Your task to perform on an android device: Go to location settings Image 0: 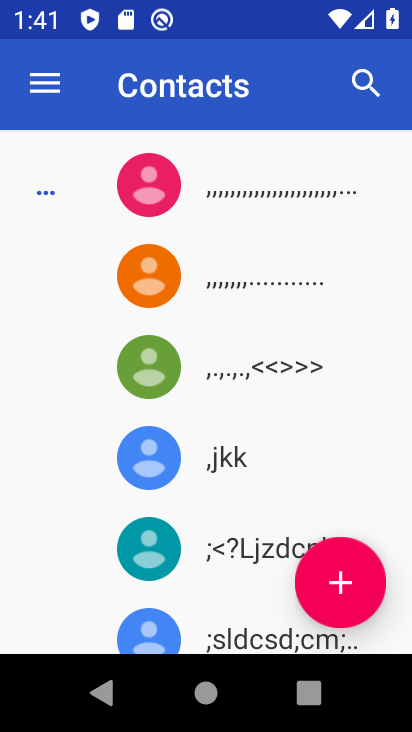
Step 0: press back button
Your task to perform on an android device: Go to location settings Image 1: 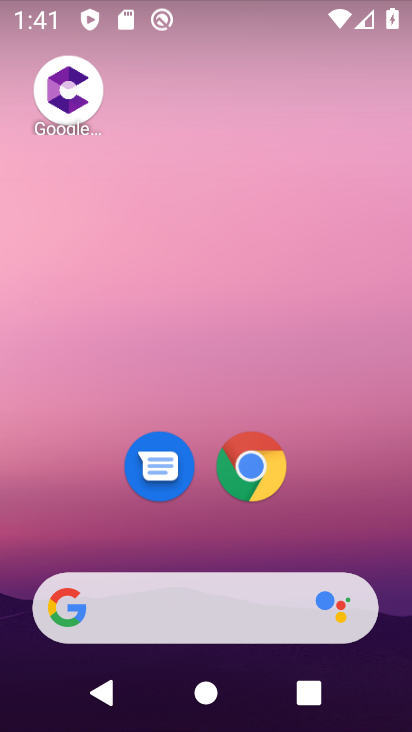
Step 1: drag from (292, 364) to (231, 40)
Your task to perform on an android device: Go to location settings Image 2: 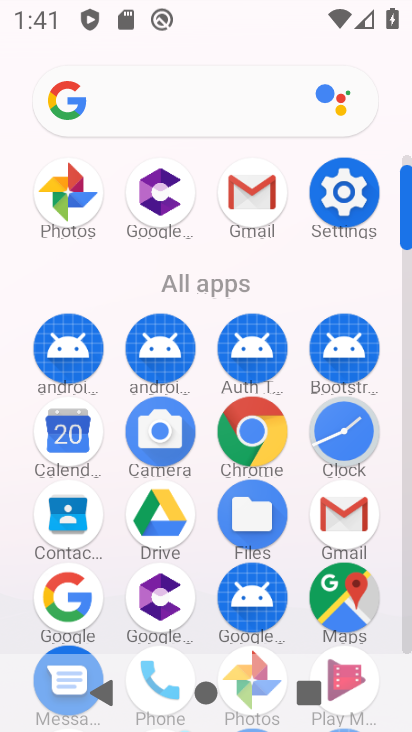
Step 2: drag from (5, 568) to (0, 292)
Your task to perform on an android device: Go to location settings Image 3: 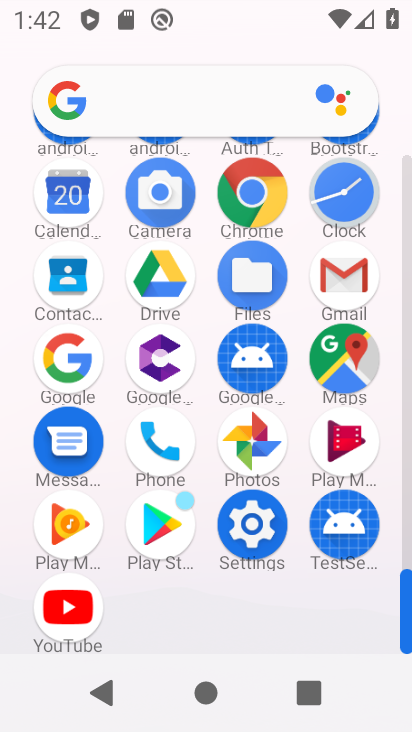
Step 3: click (248, 521)
Your task to perform on an android device: Go to location settings Image 4: 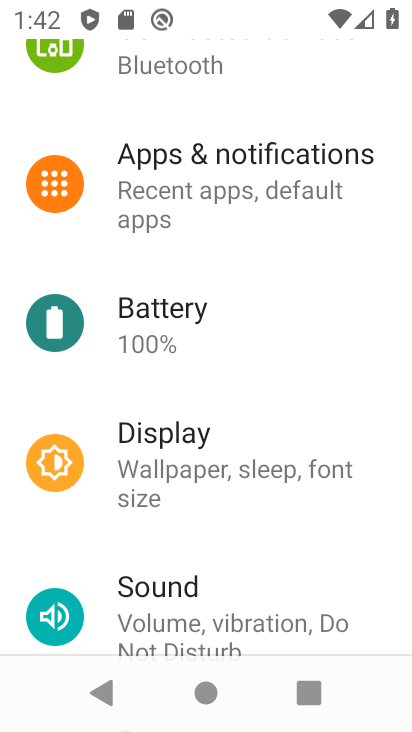
Step 4: drag from (227, 119) to (274, 538)
Your task to perform on an android device: Go to location settings Image 5: 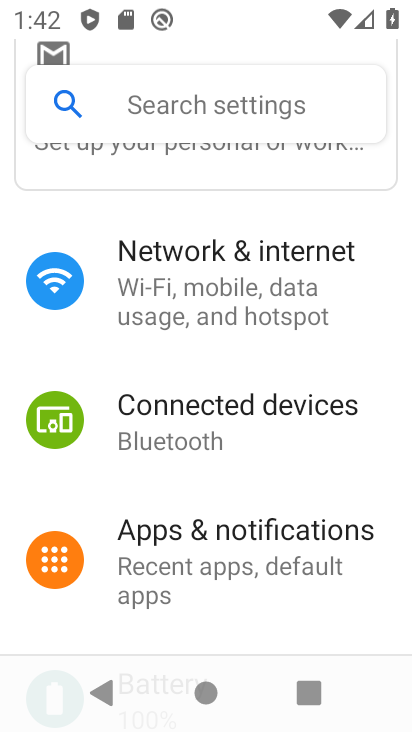
Step 5: drag from (314, 505) to (306, 185)
Your task to perform on an android device: Go to location settings Image 6: 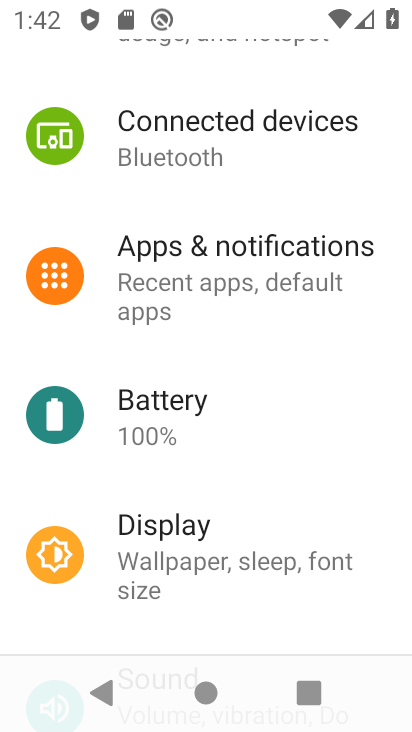
Step 6: drag from (285, 488) to (279, 168)
Your task to perform on an android device: Go to location settings Image 7: 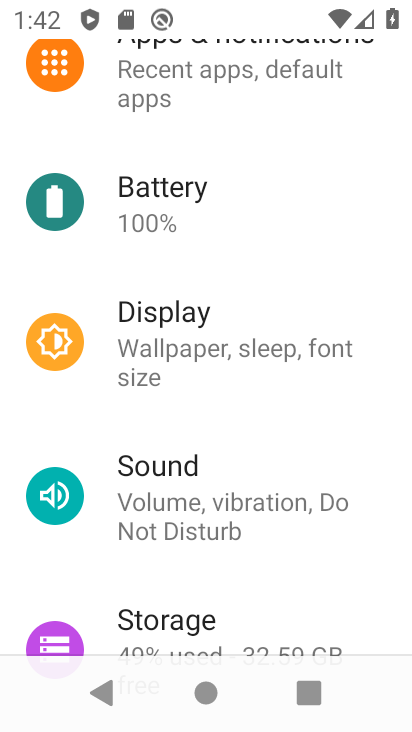
Step 7: drag from (295, 467) to (305, 140)
Your task to perform on an android device: Go to location settings Image 8: 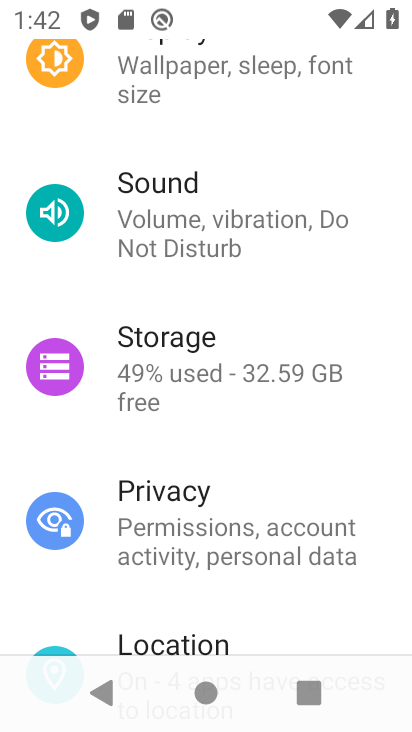
Step 8: drag from (287, 511) to (304, 157)
Your task to perform on an android device: Go to location settings Image 9: 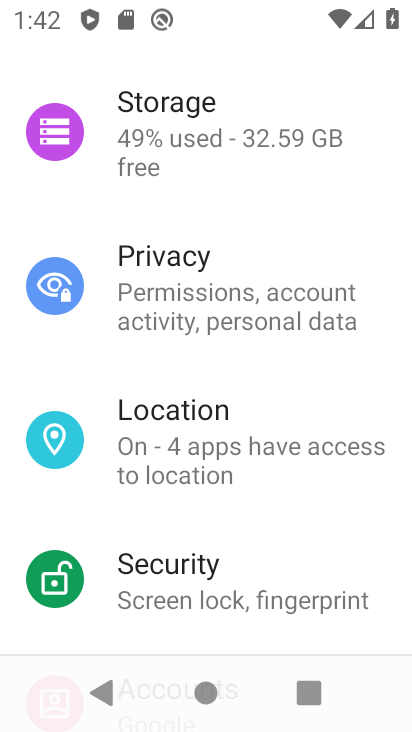
Step 9: drag from (283, 497) to (279, 127)
Your task to perform on an android device: Go to location settings Image 10: 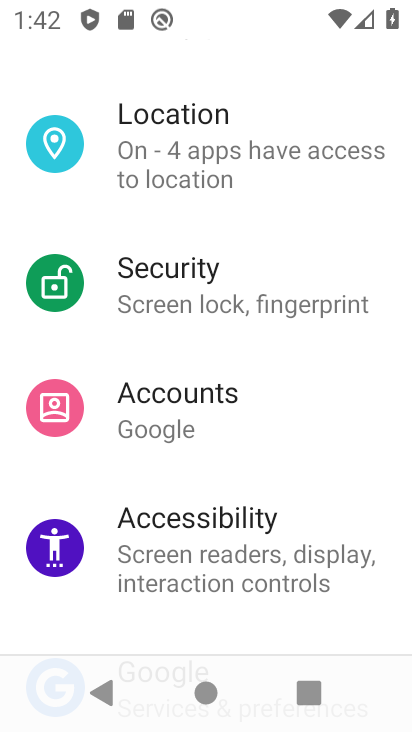
Step 10: drag from (267, 554) to (283, 206)
Your task to perform on an android device: Go to location settings Image 11: 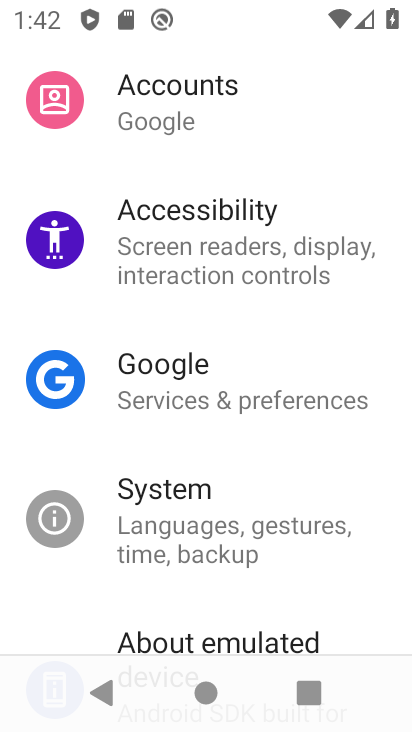
Step 11: drag from (313, 484) to (310, 196)
Your task to perform on an android device: Go to location settings Image 12: 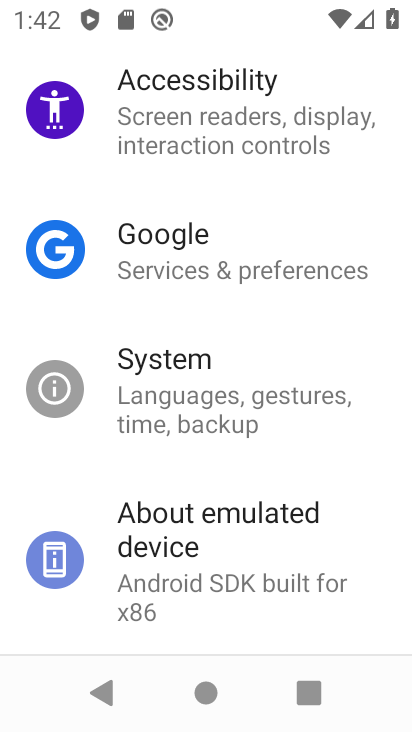
Step 12: drag from (322, 475) to (330, 175)
Your task to perform on an android device: Go to location settings Image 13: 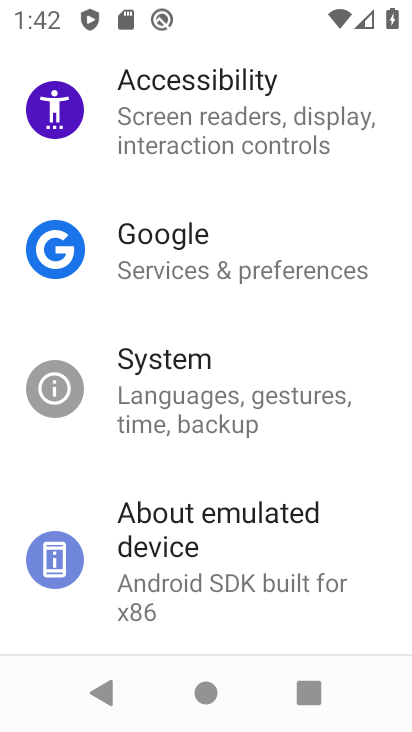
Step 13: drag from (283, 183) to (318, 540)
Your task to perform on an android device: Go to location settings Image 14: 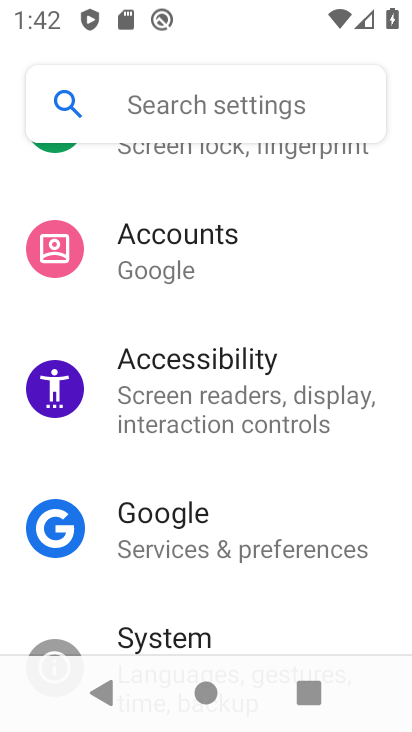
Step 14: drag from (265, 217) to (301, 521)
Your task to perform on an android device: Go to location settings Image 15: 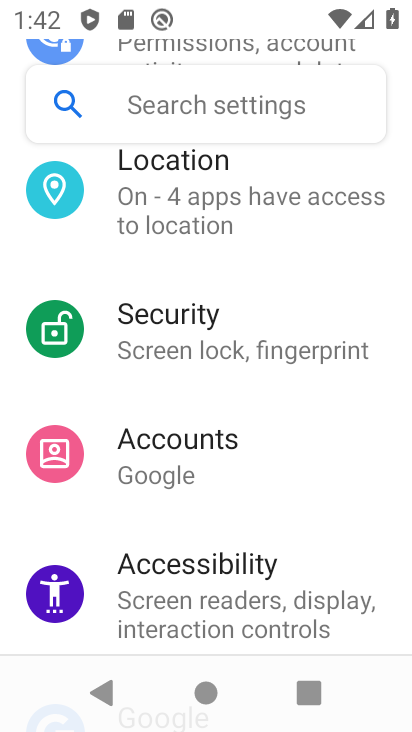
Step 15: drag from (283, 237) to (307, 527)
Your task to perform on an android device: Go to location settings Image 16: 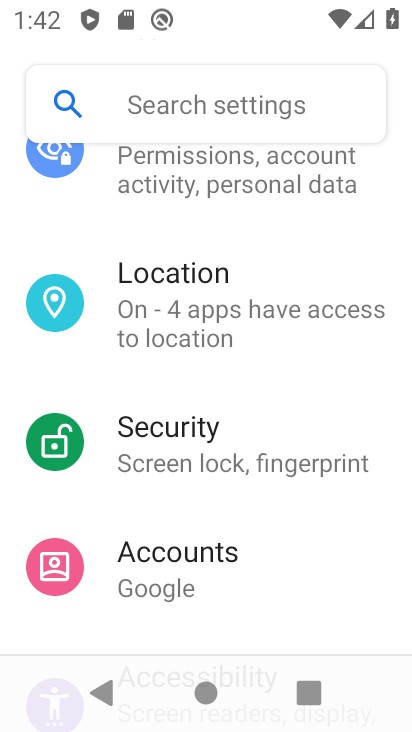
Step 16: click (264, 296)
Your task to perform on an android device: Go to location settings Image 17: 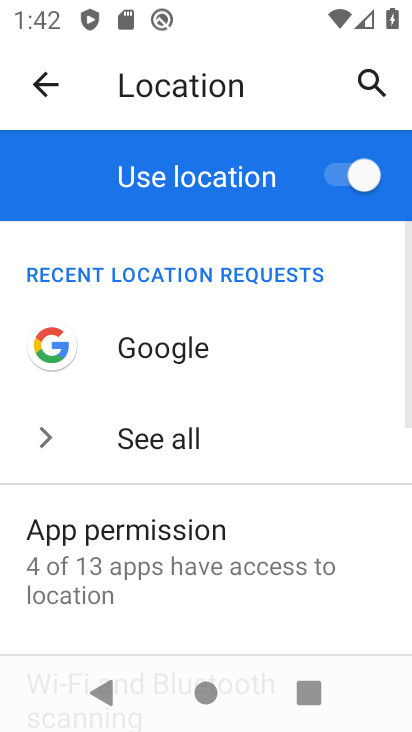
Step 17: drag from (335, 473) to (300, 219)
Your task to perform on an android device: Go to location settings Image 18: 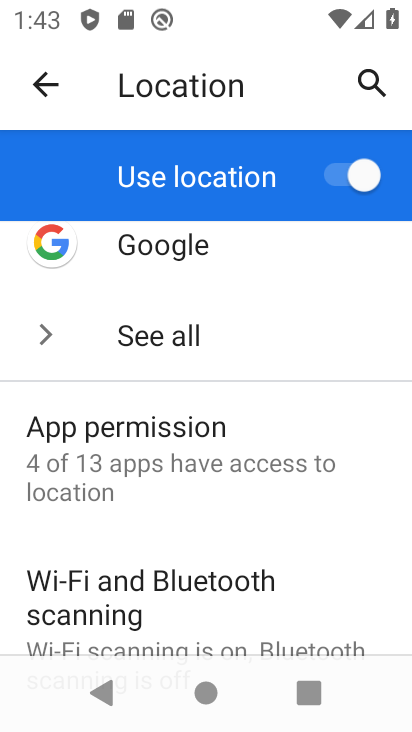
Step 18: drag from (284, 550) to (275, 259)
Your task to perform on an android device: Go to location settings Image 19: 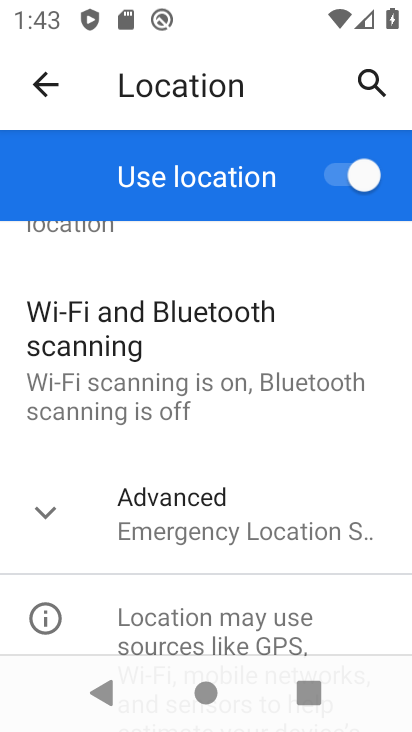
Step 19: drag from (258, 371) to (273, 605)
Your task to perform on an android device: Go to location settings Image 20: 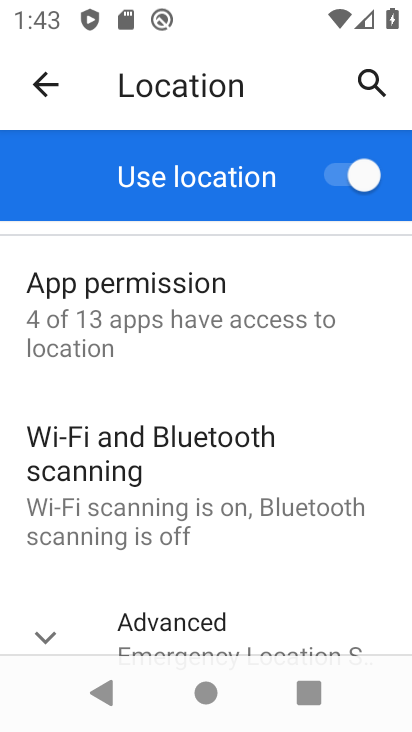
Step 20: drag from (266, 585) to (264, 256)
Your task to perform on an android device: Go to location settings Image 21: 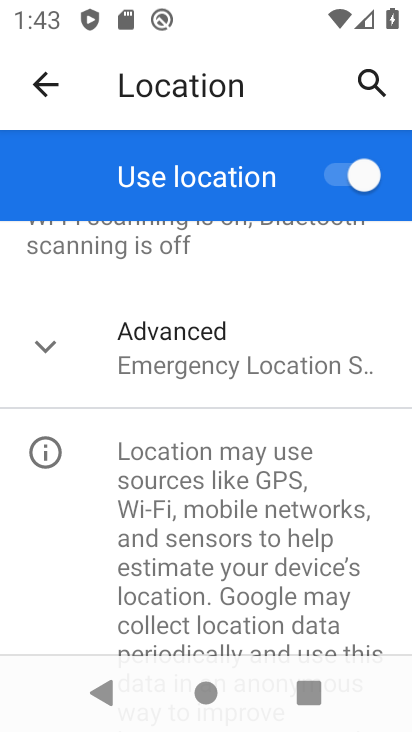
Step 21: click (35, 345)
Your task to perform on an android device: Go to location settings Image 22: 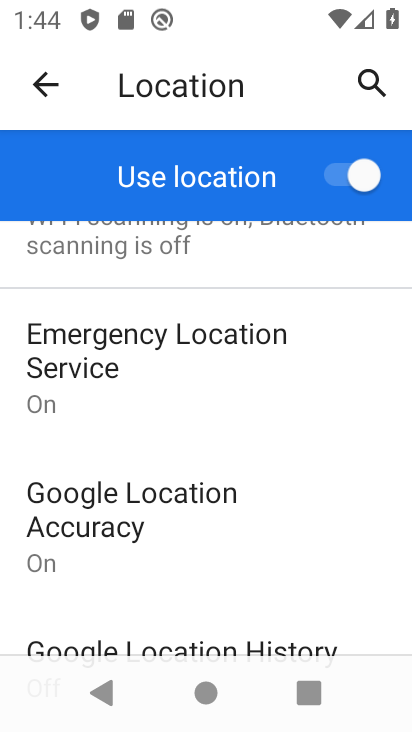
Step 22: task complete